Your task to perform on an android device: Turn off the flashlight Image 0: 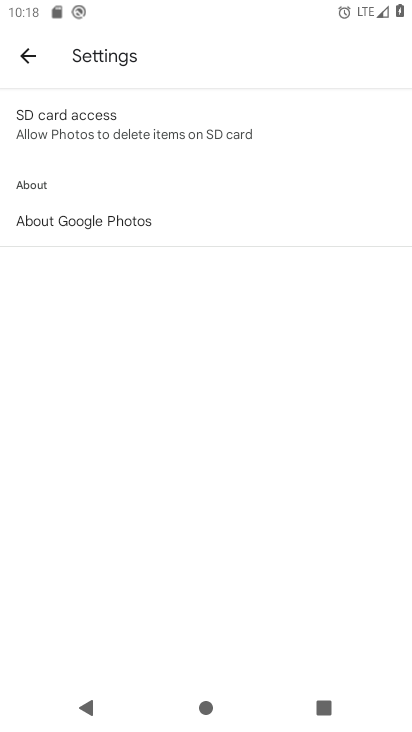
Step 0: press home button
Your task to perform on an android device: Turn off the flashlight Image 1: 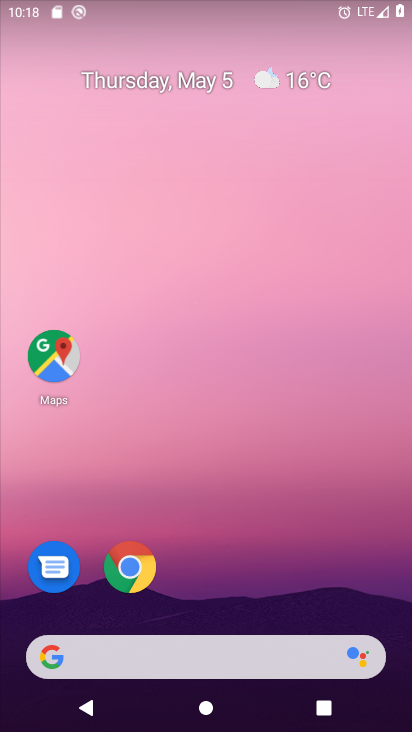
Step 1: drag from (224, 555) to (173, 104)
Your task to perform on an android device: Turn off the flashlight Image 2: 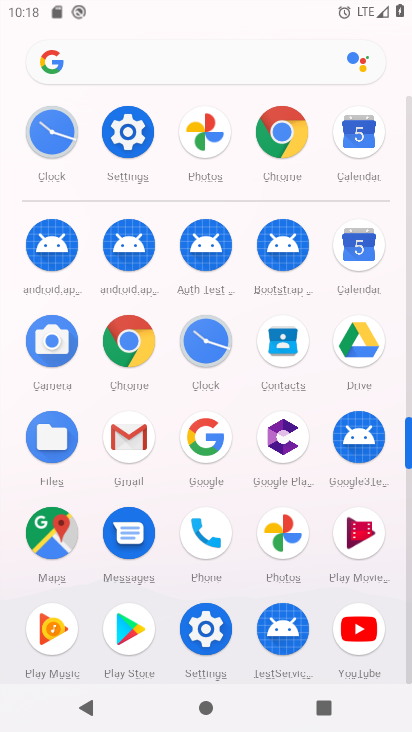
Step 2: click (132, 137)
Your task to perform on an android device: Turn off the flashlight Image 3: 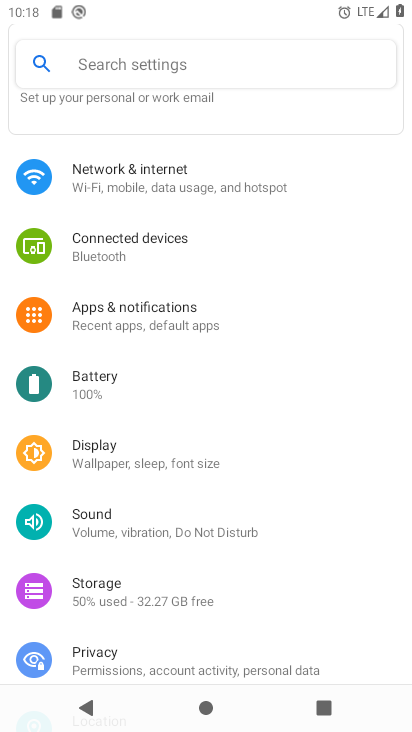
Step 3: click (165, 49)
Your task to perform on an android device: Turn off the flashlight Image 4: 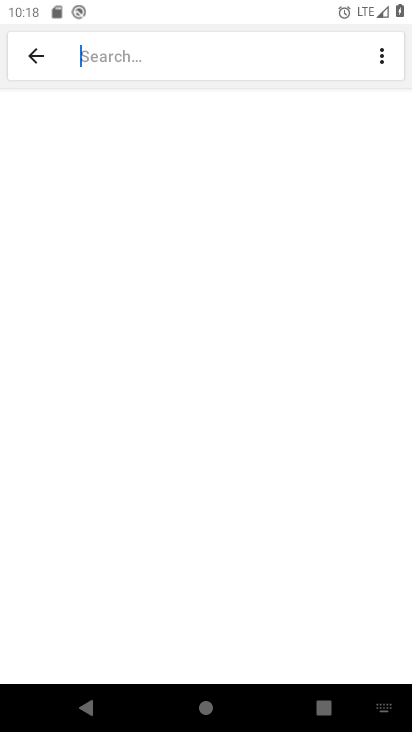
Step 4: type "Flashlight"
Your task to perform on an android device: Turn off the flashlight Image 5: 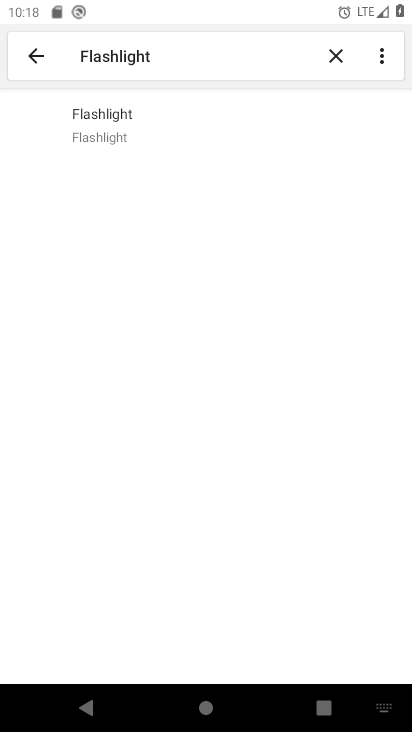
Step 5: click (92, 117)
Your task to perform on an android device: Turn off the flashlight Image 6: 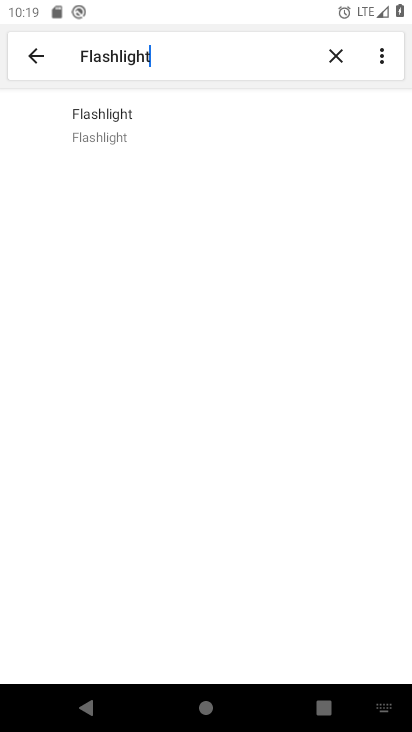
Step 6: task complete